Your task to perform on an android device: Go to calendar. Show me events next week Image 0: 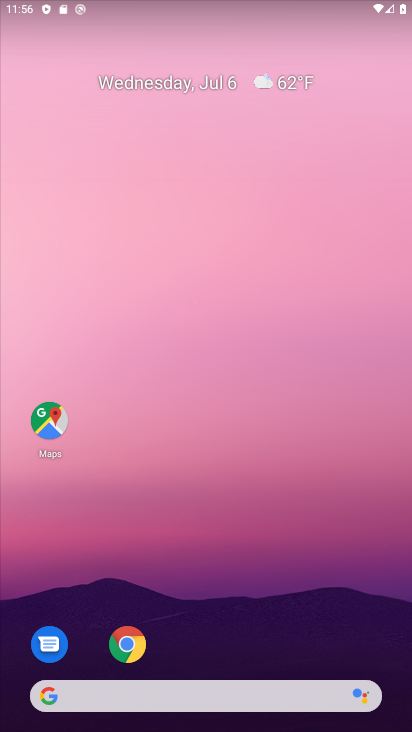
Step 0: drag from (46, 436) to (228, 2)
Your task to perform on an android device: Go to calendar. Show me events next week Image 1: 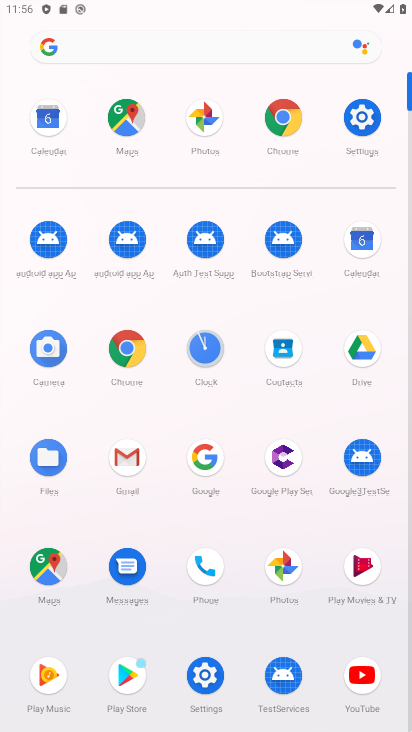
Step 1: click (369, 233)
Your task to perform on an android device: Go to calendar. Show me events next week Image 2: 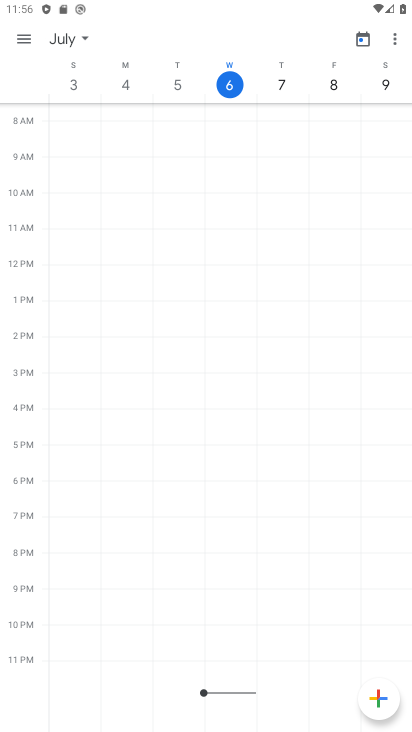
Step 2: task complete